Your task to perform on an android device: Go to Wikipedia Image 0: 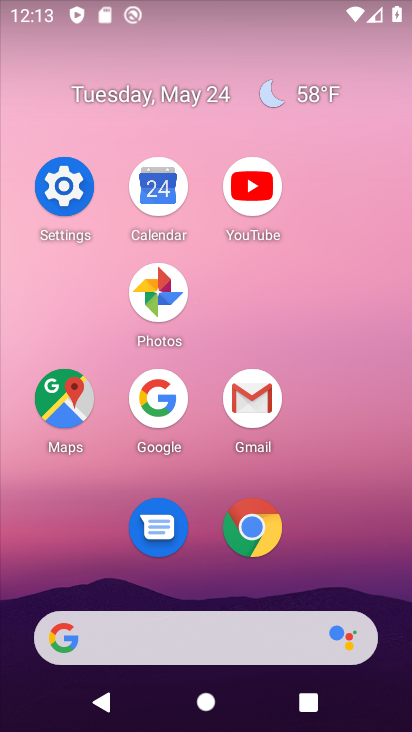
Step 0: click (257, 538)
Your task to perform on an android device: Go to Wikipedia Image 1: 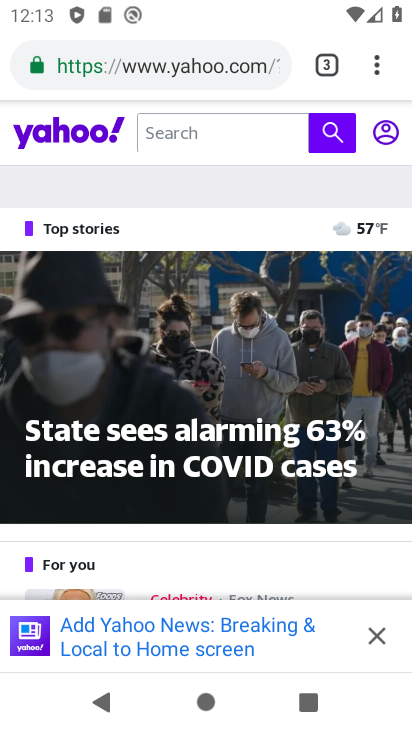
Step 1: click (338, 70)
Your task to perform on an android device: Go to Wikipedia Image 2: 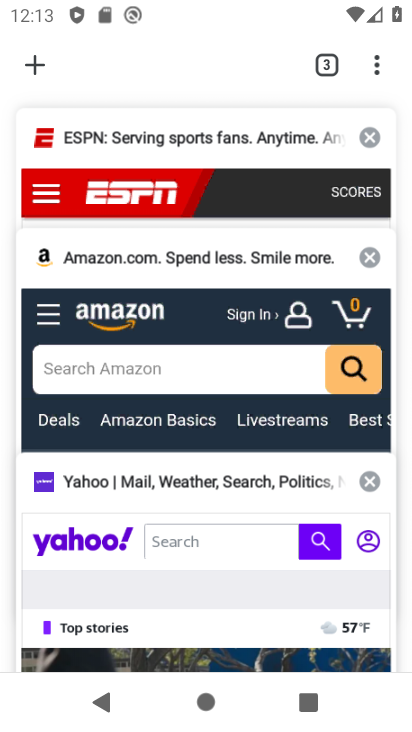
Step 2: click (29, 69)
Your task to perform on an android device: Go to Wikipedia Image 3: 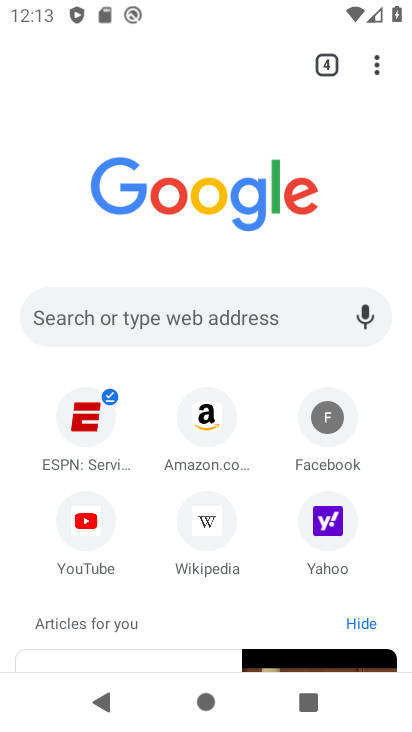
Step 3: click (206, 528)
Your task to perform on an android device: Go to Wikipedia Image 4: 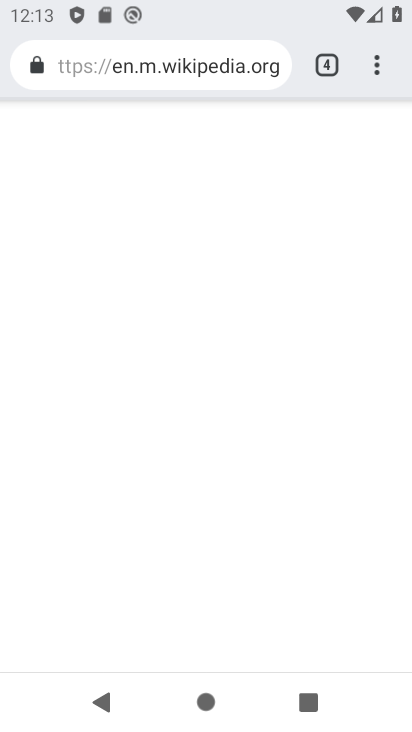
Step 4: task complete